Your task to perform on an android device: Open internet settings Image 0: 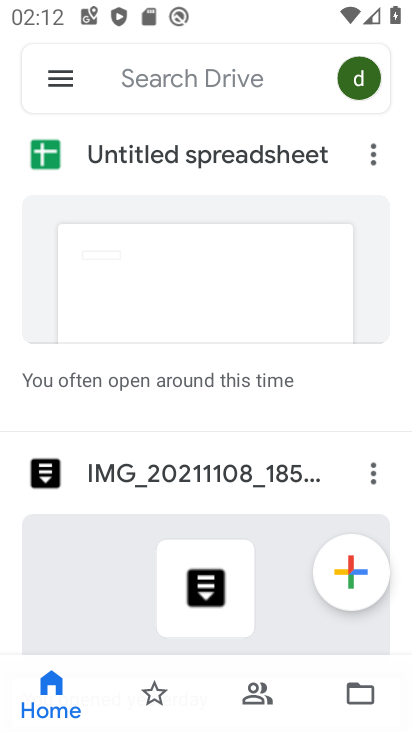
Step 0: press back button
Your task to perform on an android device: Open internet settings Image 1: 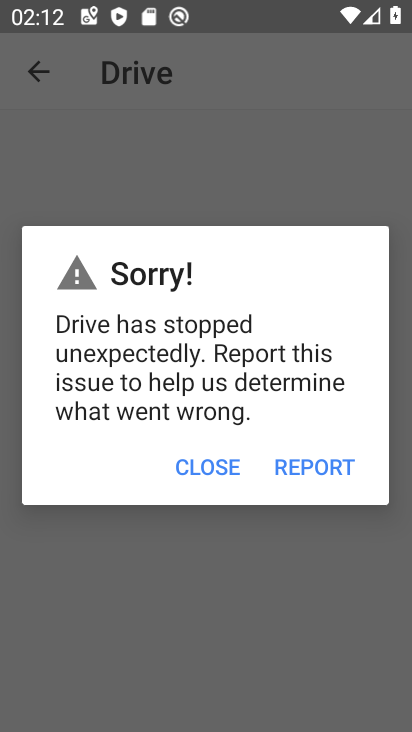
Step 1: press back button
Your task to perform on an android device: Open internet settings Image 2: 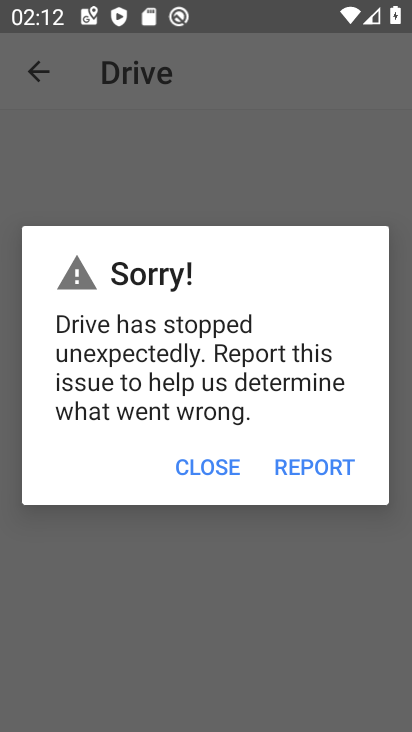
Step 2: press home button
Your task to perform on an android device: Open internet settings Image 3: 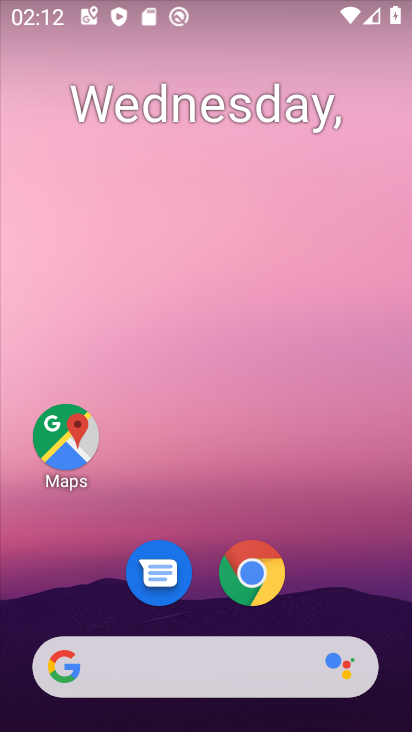
Step 3: drag from (328, 570) to (263, 61)
Your task to perform on an android device: Open internet settings Image 4: 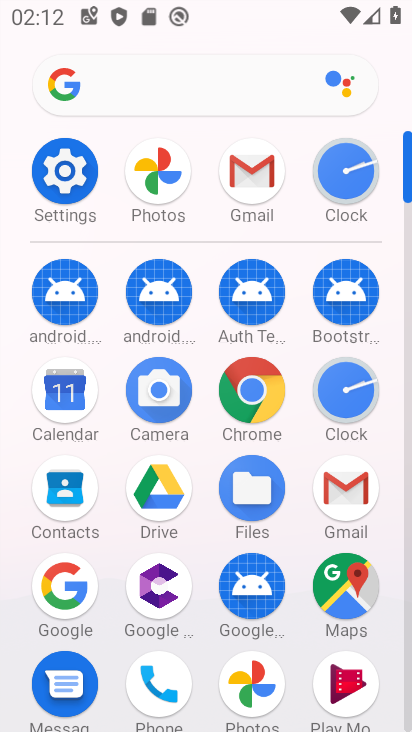
Step 4: click (65, 169)
Your task to perform on an android device: Open internet settings Image 5: 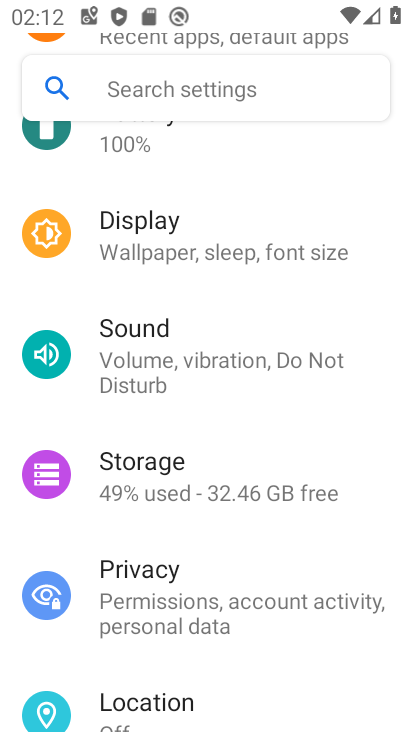
Step 5: drag from (229, 217) to (215, 453)
Your task to perform on an android device: Open internet settings Image 6: 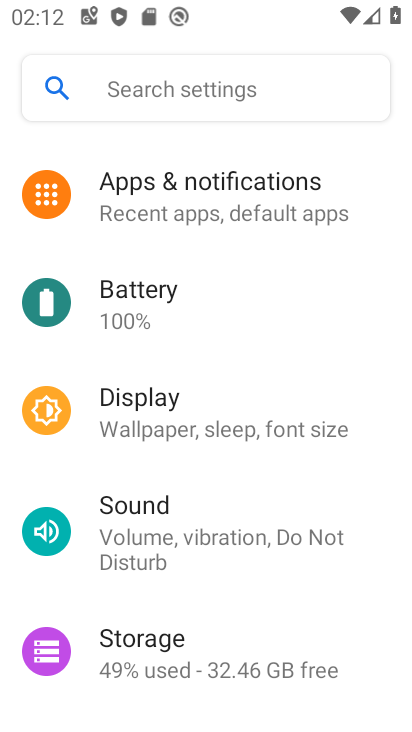
Step 6: drag from (222, 247) to (233, 487)
Your task to perform on an android device: Open internet settings Image 7: 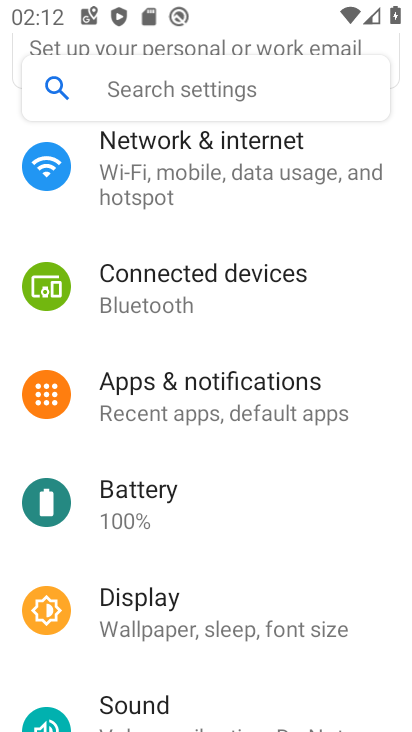
Step 7: click (200, 142)
Your task to perform on an android device: Open internet settings Image 8: 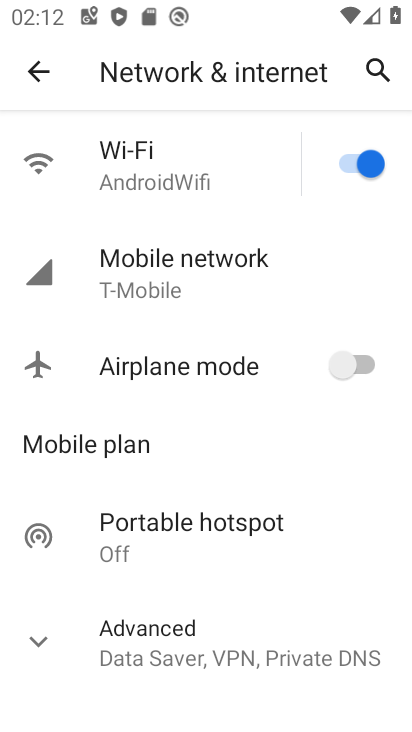
Step 8: task complete